Your task to perform on an android device: turn off airplane mode Image 0: 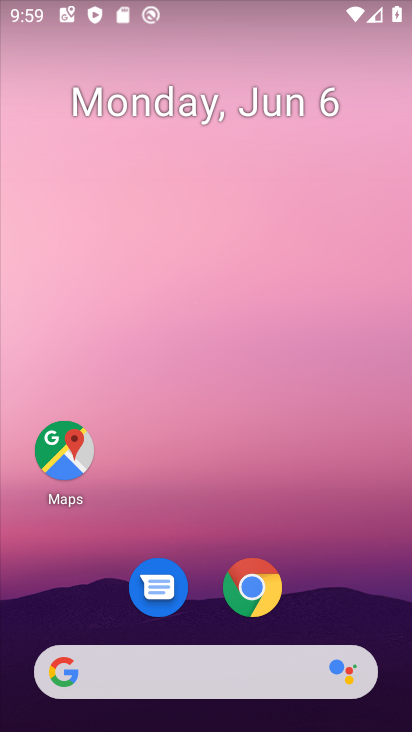
Step 0: drag from (206, 708) to (403, 96)
Your task to perform on an android device: turn off airplane mode Image 1: 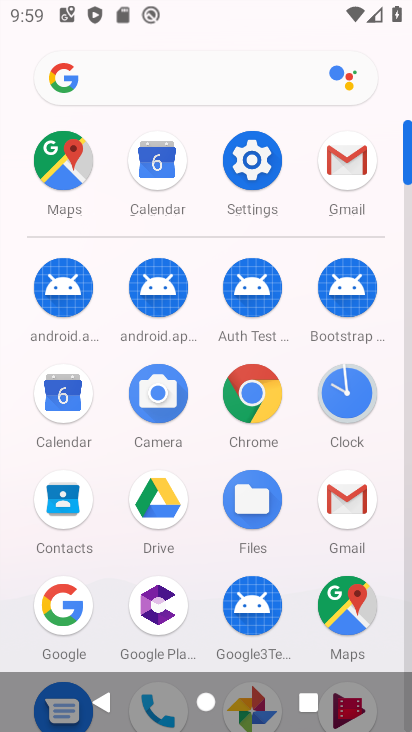
Step 1: click (266, 172)
Your task to perform on an android device: turn off airplane mode Image 2: 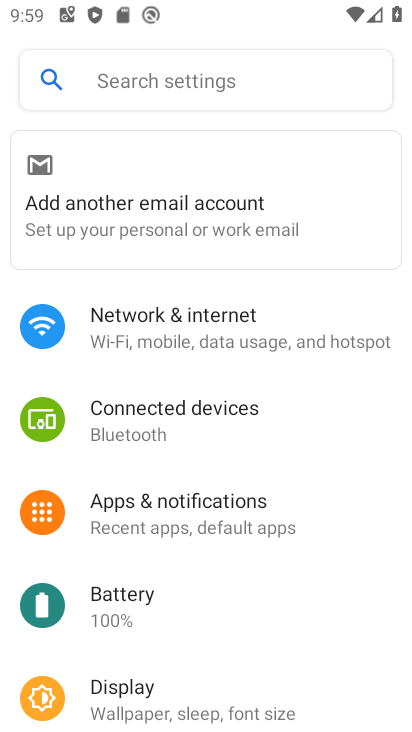
Step 2: click (266, 172)
Your task to perform on an android device: turn off airplane mode Image 3: 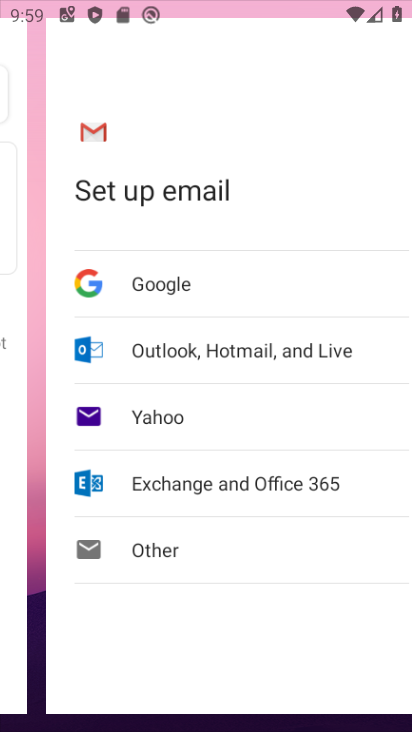
Step 3: press back button
Your task to perform on an android device: turn off airplane mode Image 4: 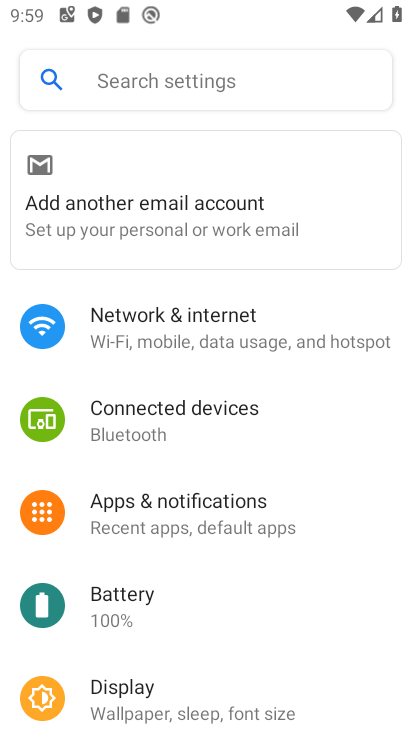
Step 4: click (233, 327)
Your task to perform on an android device: turn off airplane mode Image 5: 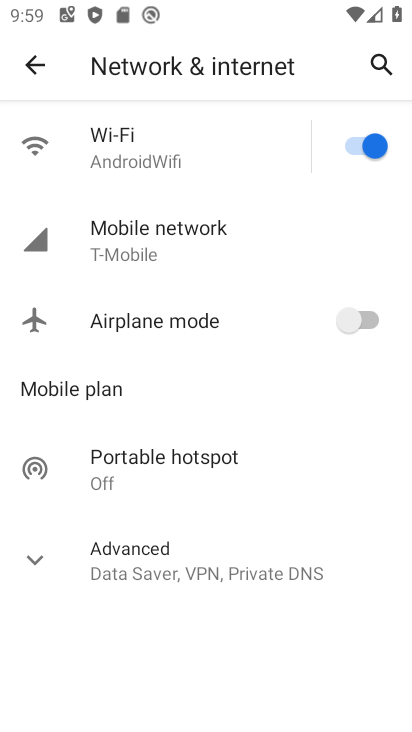
Step 5: task complete